Your task to perform on an android device: all mails in gmail Image 0: 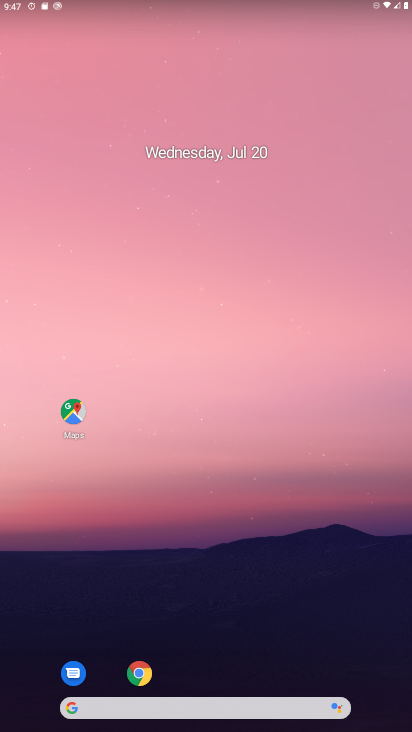
Step 0: drag from (386, 674) to (204, 101)
Your task to perform on an android device: all mails in gmail Image 1: 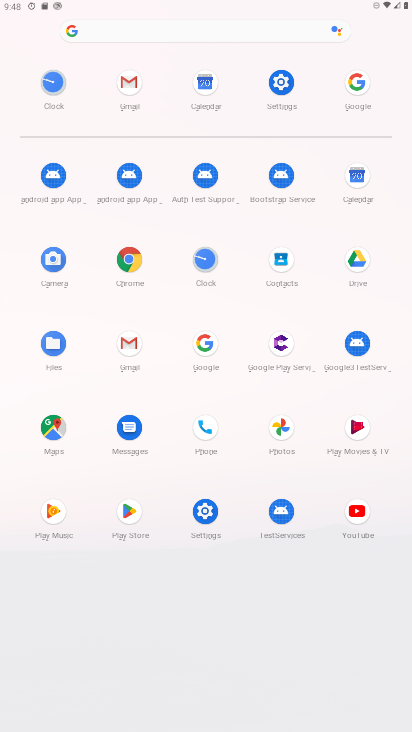
Step 1: click (130, 350)
Your task to perform on an android device: all mails in gmail Image 2: 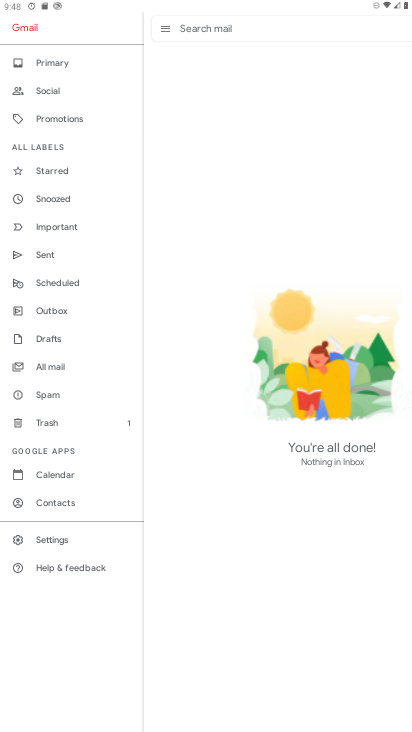
Step 2: click (52, 368)
Your task to perform on an android device: all mails in gmail Image 3: 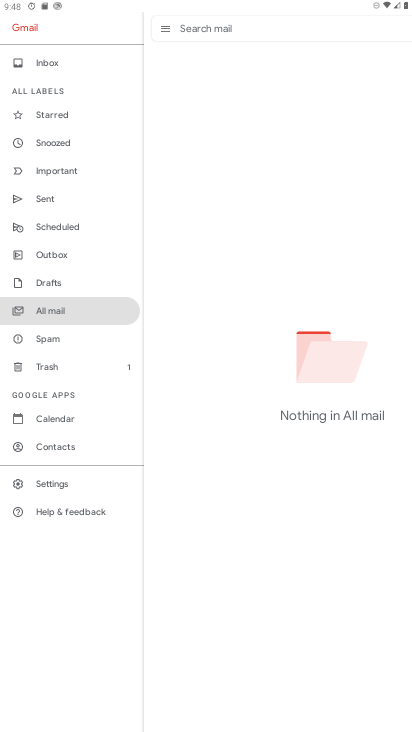
Step 3: task complete